Your task to perform on an android device: turn on improve location accuracy Image 0: 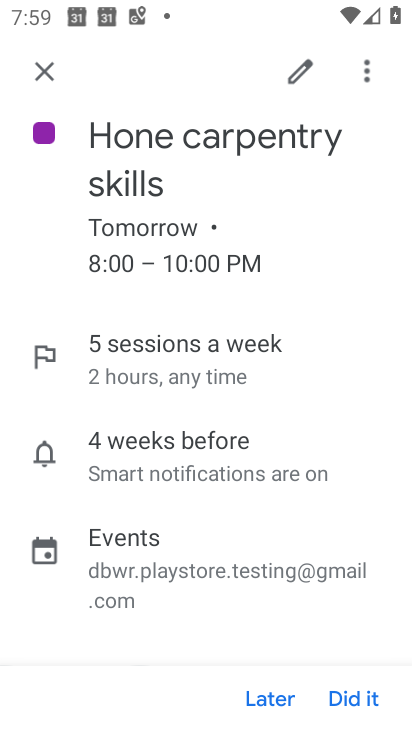
Step 0: press home button
Your task to perform on an android device: turn on improve location accuracy Image 1: 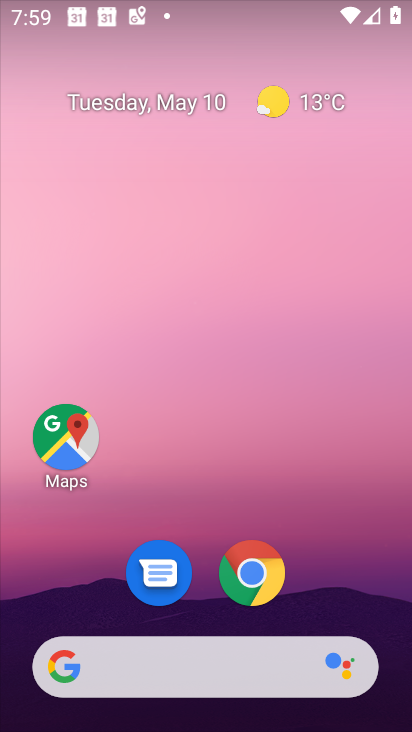
Step 1: drag from (312, 564) to (286, 19)
Your task to perform on an android device: turn on improve location accuracy Image 2: 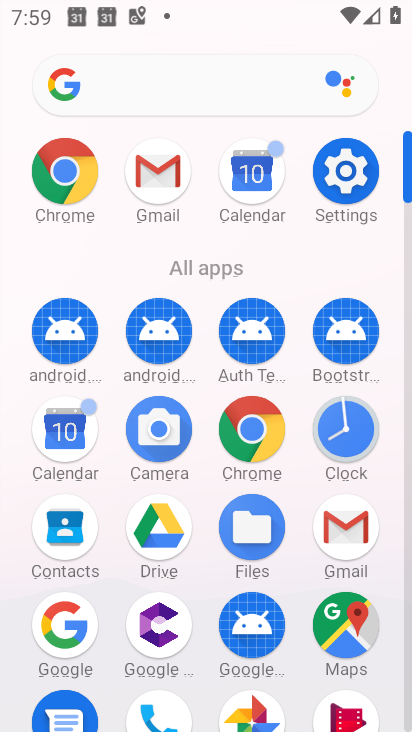
Step 2: click (343, 177)
Your task to perform on an android device: turn on improve location accuracy Image 3: 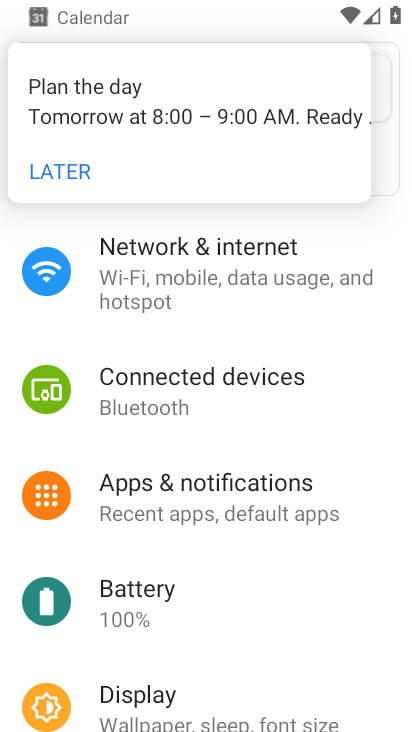
Step 3: drag from (349, 602) to (332, 191)
Your task to perform on an android device: turn on improve location accuracy Image 4: 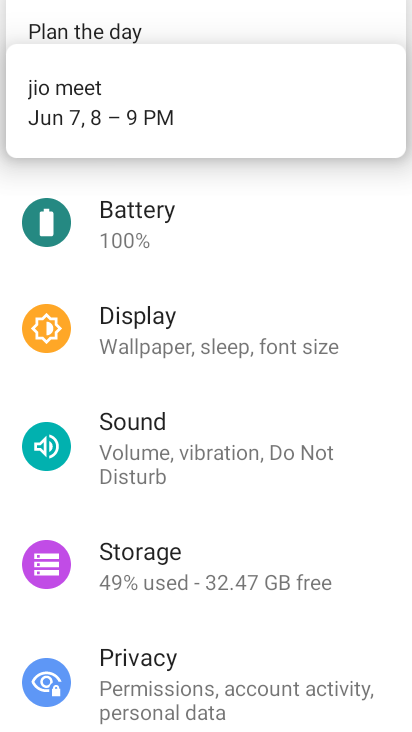
Step 4: drag from (352, 574) to (348, 349)
Your task to perform on an android device: turn on improve location accuracy Image 5: 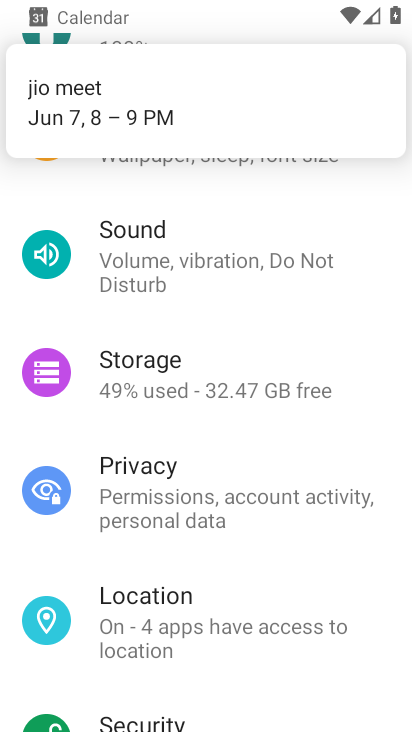
Step 5: click (122, 604)
Your task to perform on an android device: turn on improve location accuracy Image 6: 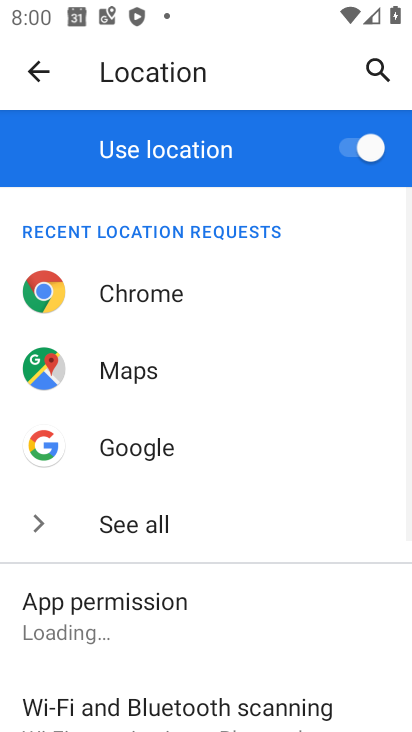
Step 6: drag from (289, 608) to (271, 229)
Your task to perform on an android device: turn on improve location accuracy Image 7: 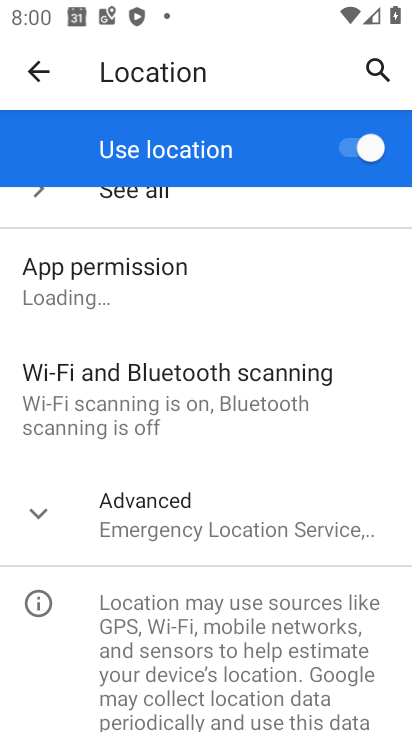
Step 7: click (42, 517)
Your task to perform on an android device: turn on improve location accuracy Image 8: 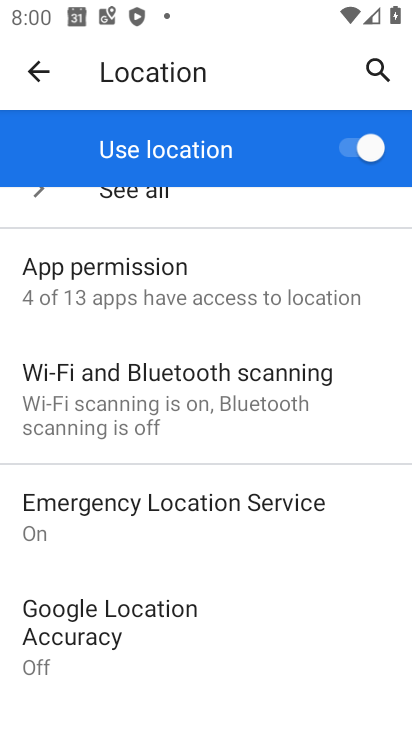
Step 8: click (90, 634)
Your task to perform on an android device: turn on improve location accuracy Image 9: 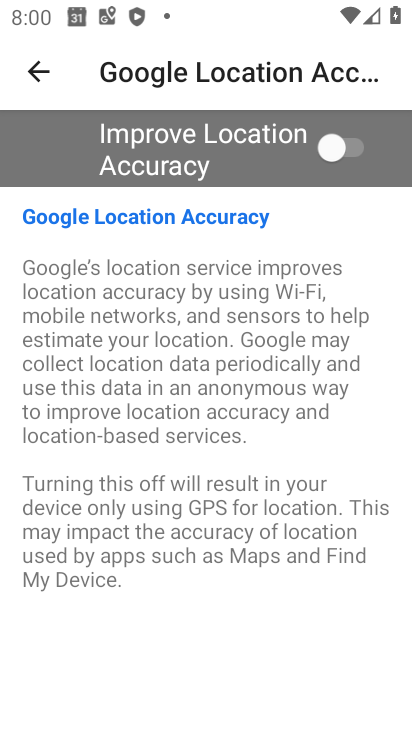
Step 9: click (330, 149)
Your task to perform on an android device: turn on improve location accuracy Image 10: 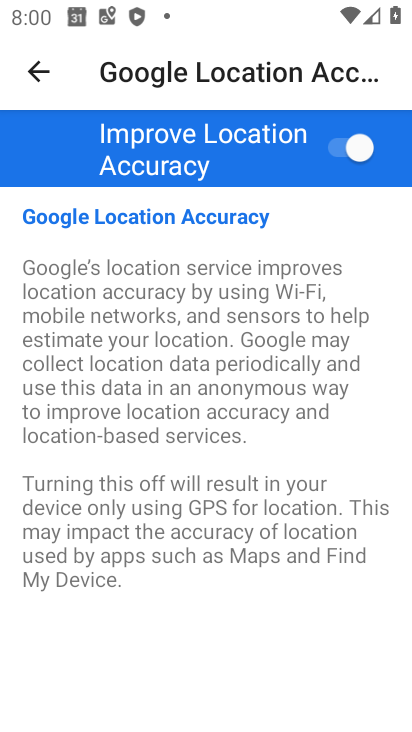
Step 10: task complete